Your task to perform on an android device: create a new album in the google photos Image 0: 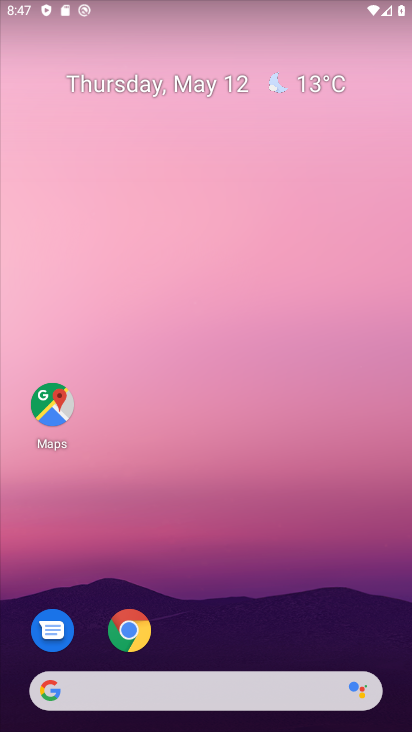
Step 0: drag from (197, 670) to (244, 9)
Your task to perform on an android device: create a new album in the google photos Image 1: 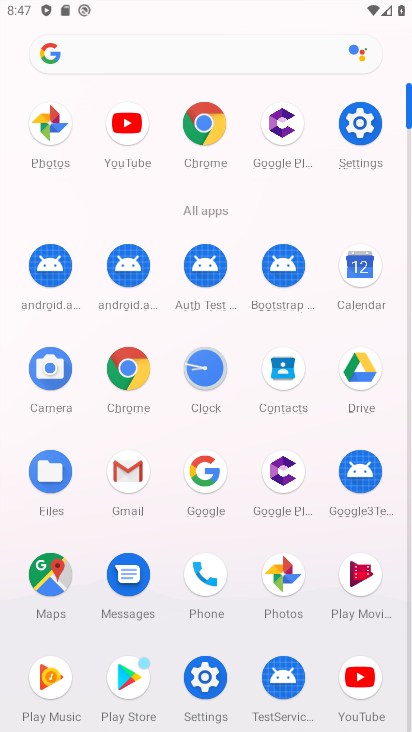
Step 1: click (274, 582)
Your task to perform on an android device: create a new album in the google photos Image 2: 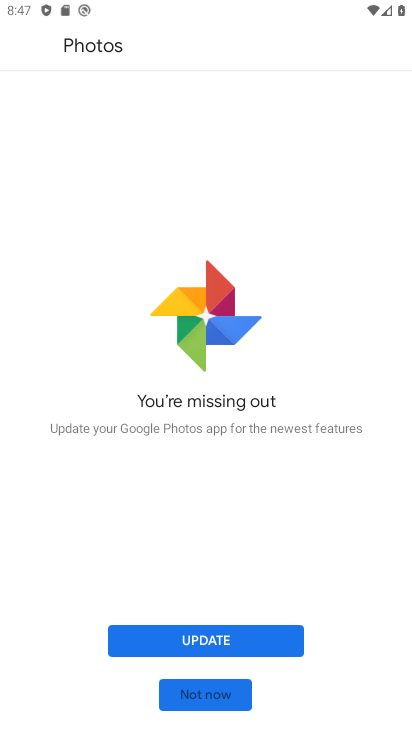
Step 2: click (199, 709)
Your task to perform on an android device: create a new album in the google photos Image 3: 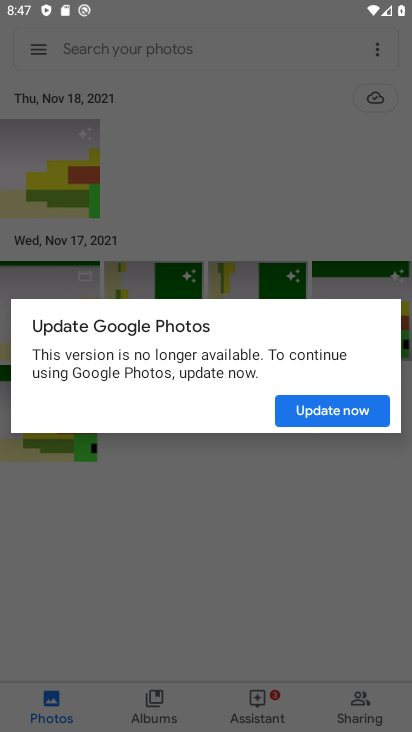
Step 3: click (304, 405)
Your task to perform on an android device: create a new album in the google photos Image 4: 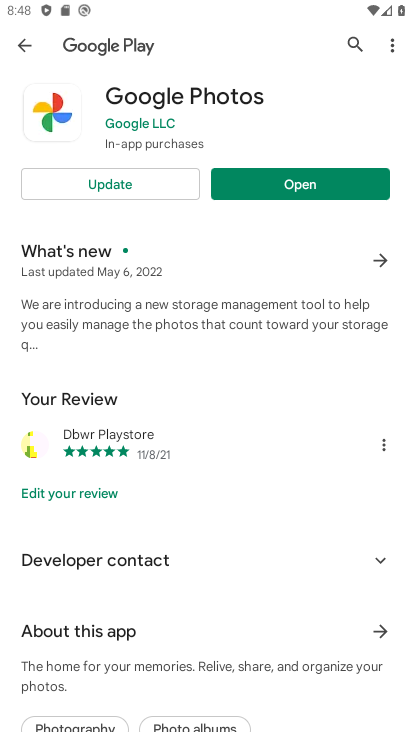
Step 4: click (107, 191)
Your task to perform on an android device: create a new album in the google photos Image 5: 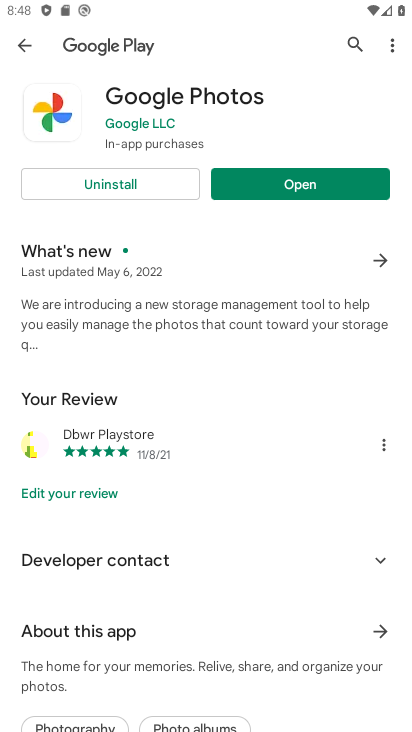
Step 5: click (263, 185)
Your task to perform on an android device: create a new album in the google photos Image 6: 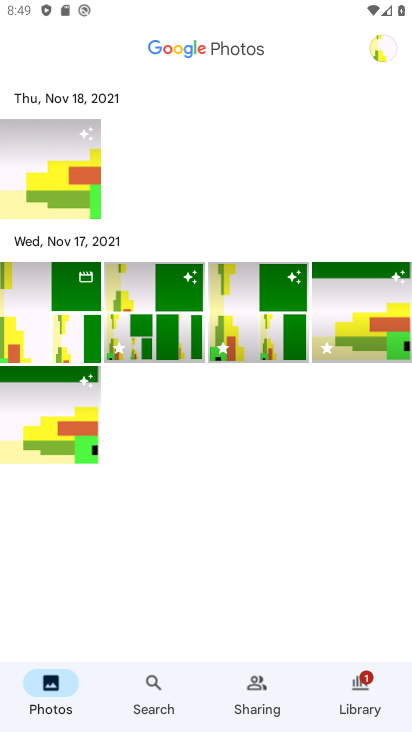
Step 6: click (359, 720)
Your task to perform on an android device: create a new album in the google photos Image 7: 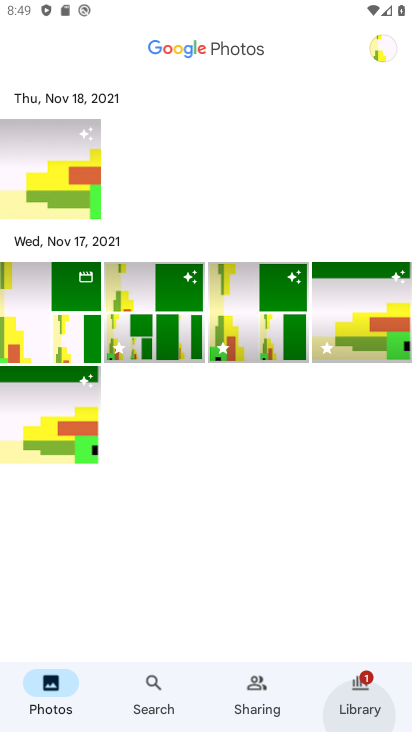
Step 7: click (359, 720)
Your task to perform on an android device: create a new album in the google photos Image 8: 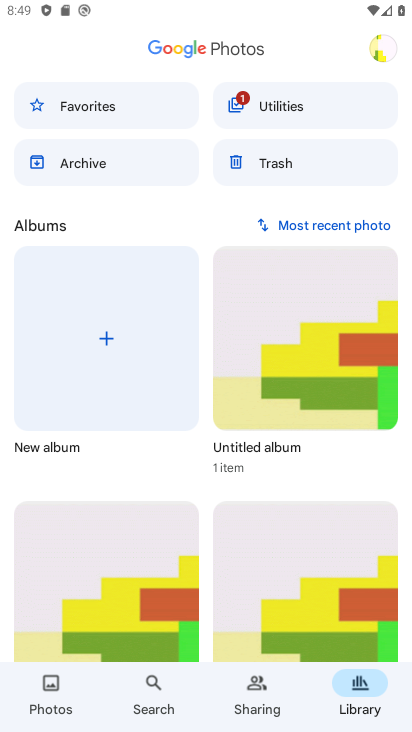
Step 8: click (107, 315)
Your task to perform on an android device: create a new album in the google photos Image 9: 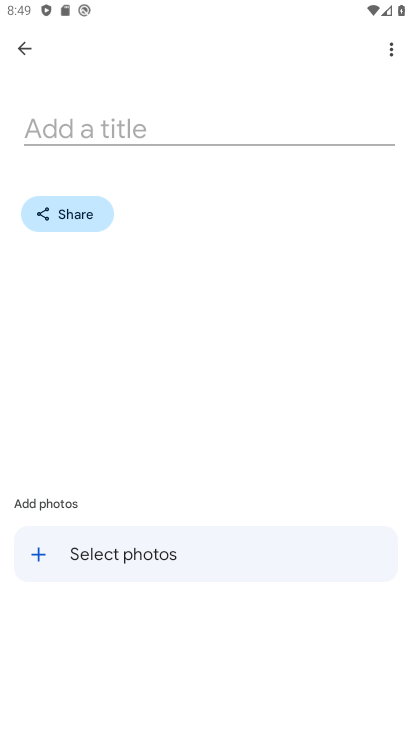
Step 9: click (111, 122)
Your task to perform on an android device: create a new album in the google photos Image 10: 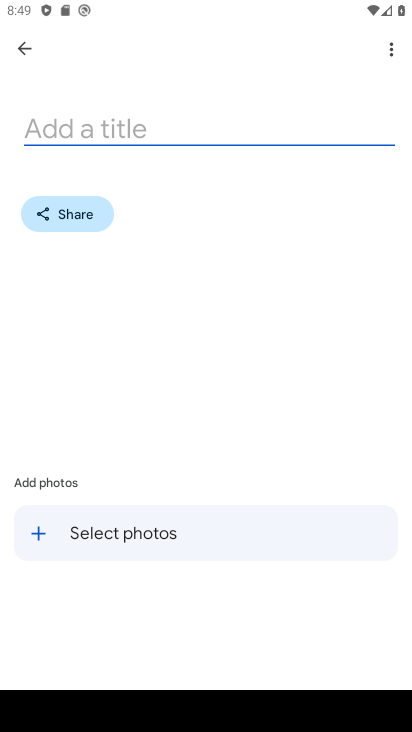
Step 10: type "bvbcv"
Your task to perform on an android device: create a new album in the google photos Image 11: 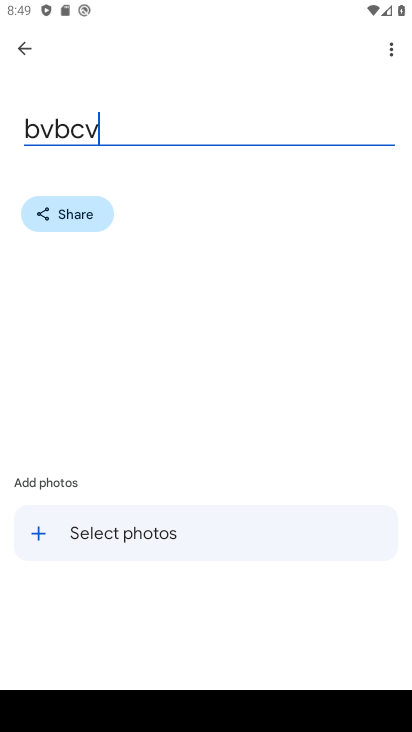
Step 11: click (147, 526)
Your task to perform on an android device: create a new album in the google photos Image 12: 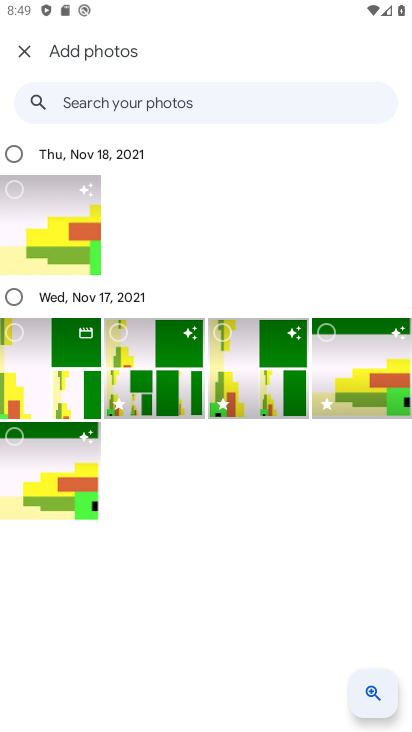
Step 12: click (18, 161)
Your task to perform on an android device: create a new album in the google photos Image 13: 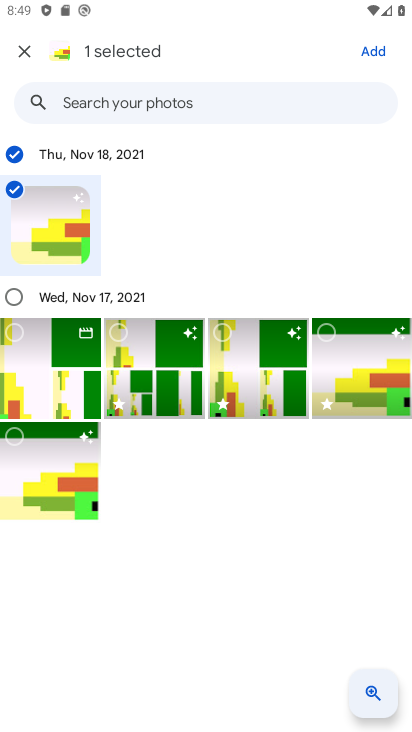
Step 13: click (379, 56)
Your task to perform on an android device: create a new album in the google photos Image 14: 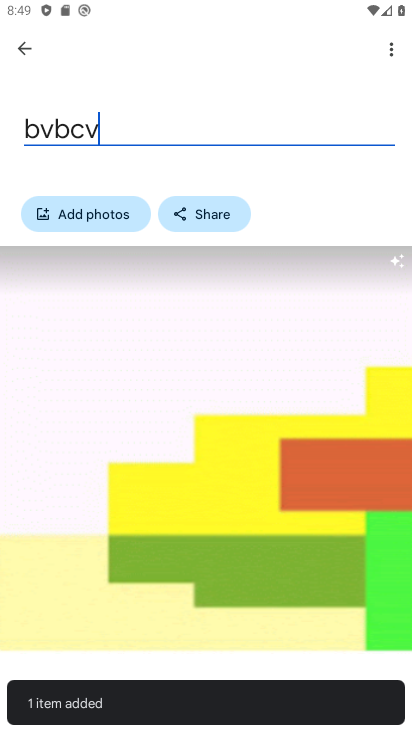
Step 14: task complete